Your task to perform on an android device: set the timer Image 0: 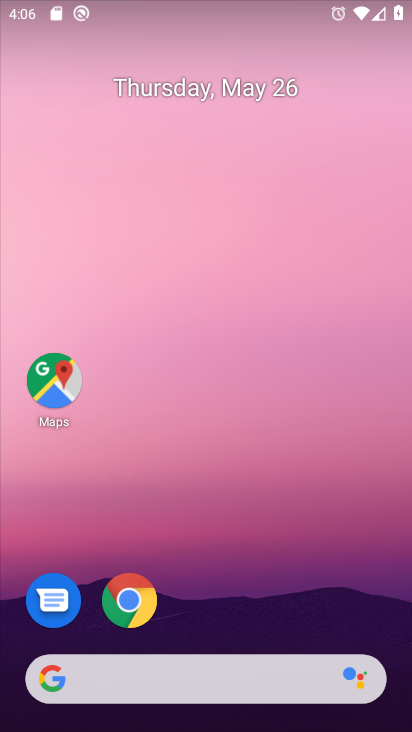
Step 0: click (146, 601)
Your task to perform on an android device: set the timer Image 1: 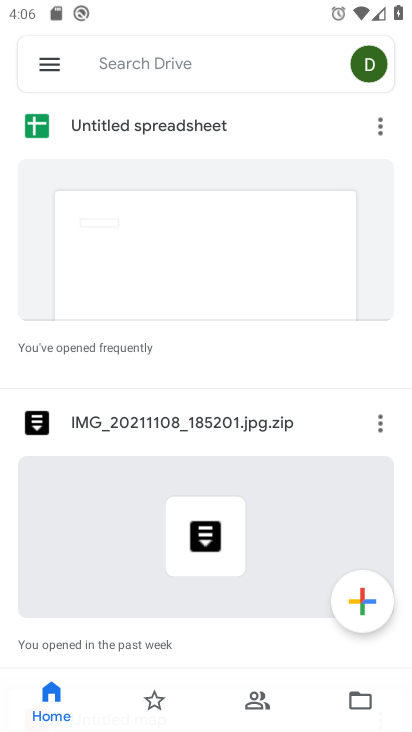
Step 1: press home button
Your task to perform on an android device: set the timer Image 2: 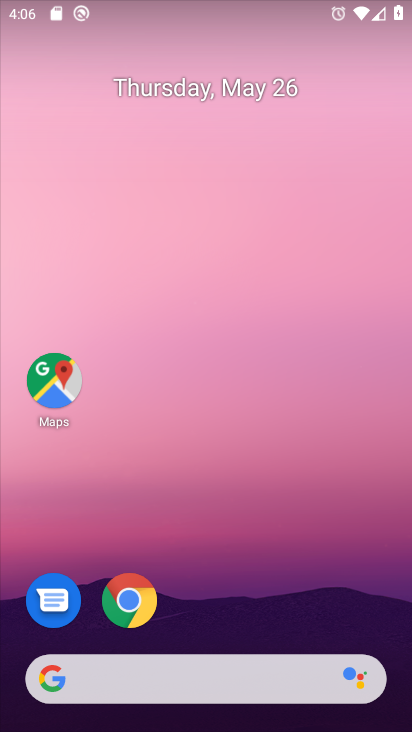
Step 2: drag from (219, 630) to (229, 8)
Your task to perform on an android device: set the timer Image 3: 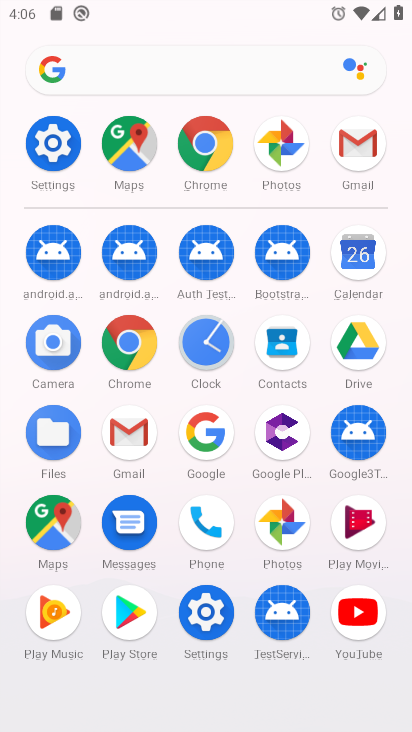
Step 3: click (208, 349)
Your task to perform on an android device: set the timer Image 4: 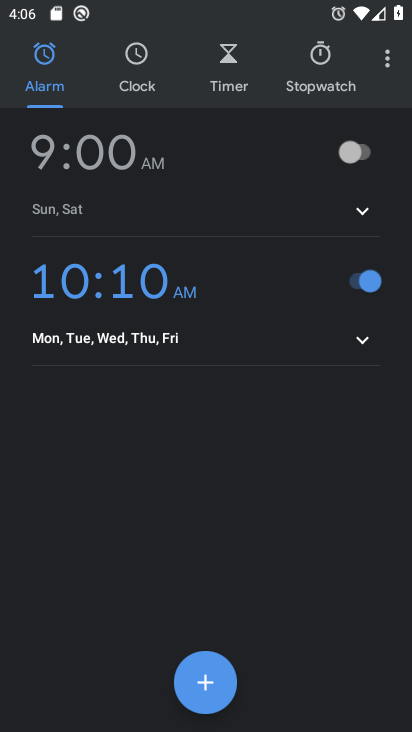
Step 4: click (226, 48)
Your task to perform on an android device: set the timer Image 5: 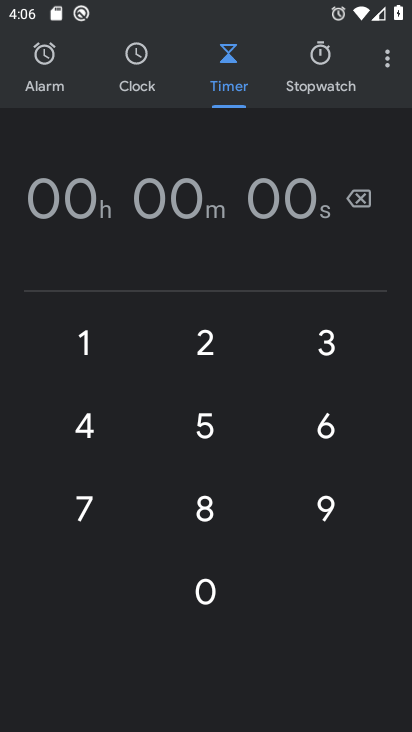
Step 5: click (209, 417)
Your task to perform on an android device: set the timer Image 6: 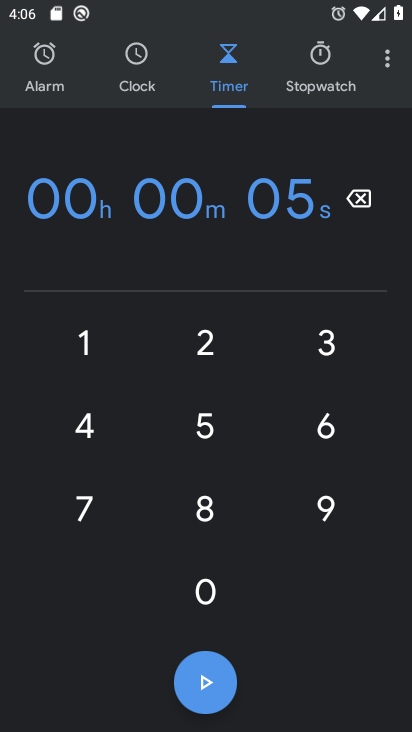
Step 6: click (321, 509)
Your task to perform on an android device: set the timer Image 7: 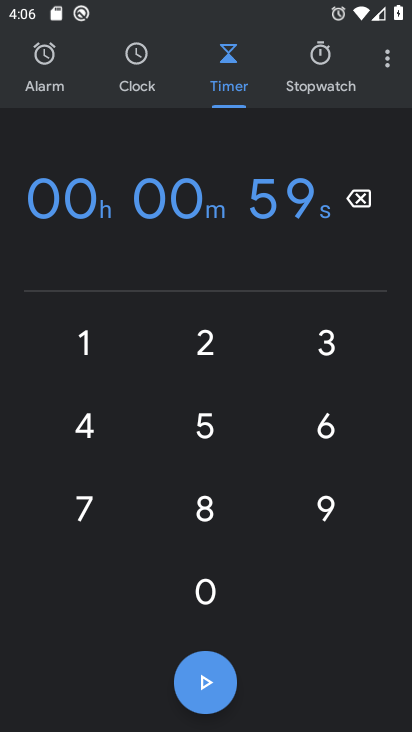
Step 7: click (324, 434)
Your task to perform on an android device: set the timer Image 8: 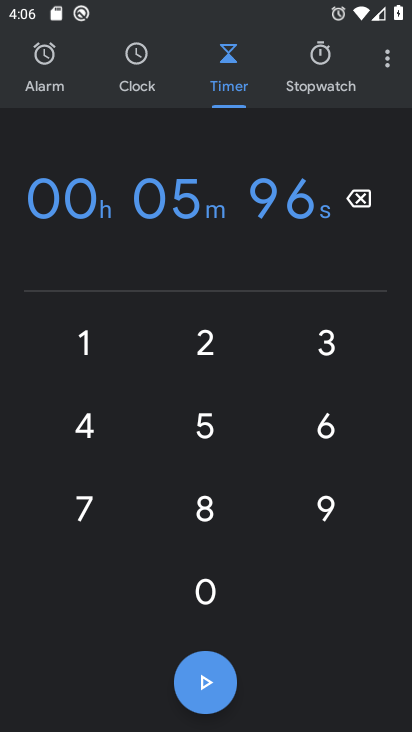
Step 8: click (206, 679)
Your task to perform on an android device: set the timer Image 9: 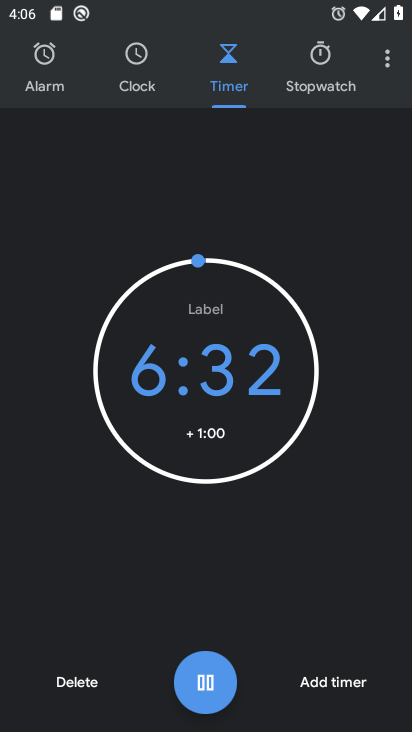
Step 9: task complete